Your task to perform on an android device: Go to Maps Image 0: 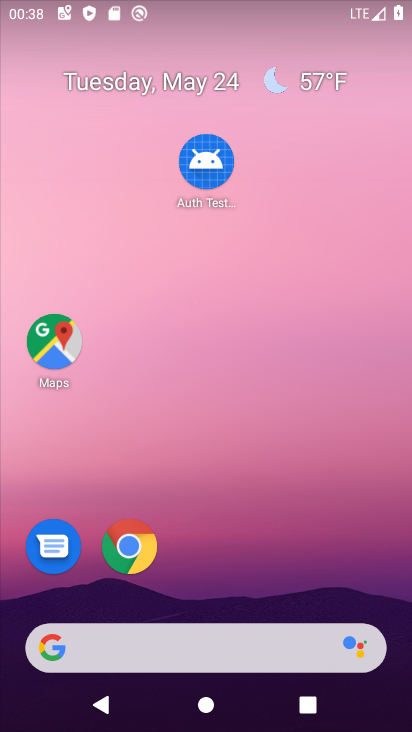
Step 0: drag from (202, 548) to (301, 40)
Your task to perform on an android device: Go to Maps Image 1: 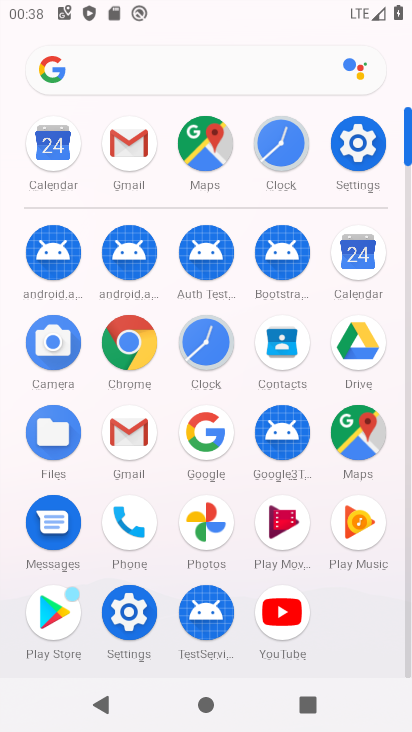
Step 1: click (348, 437)
Your task to perform on an android device: Go to Maps Image 2: 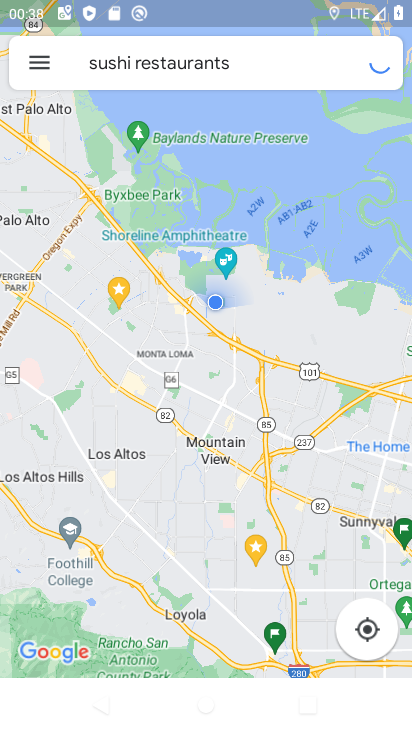
Step 2: task complete